Your task to perform on an android device: Open ESPN.com Image 0: 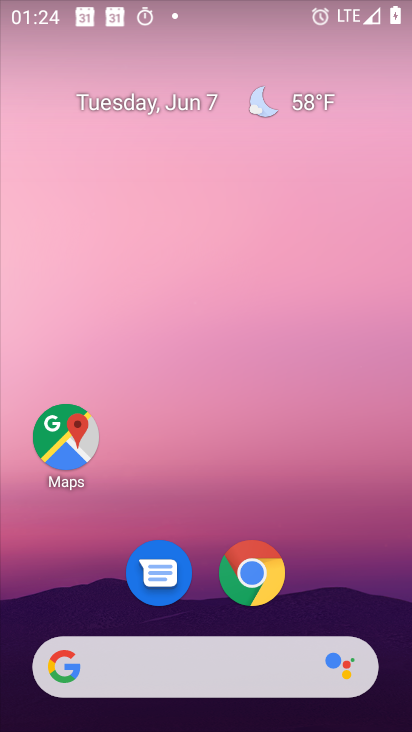
Step 0: click (256, 561)
Your task to perform on an android device: Open ESPN.com Image 1: 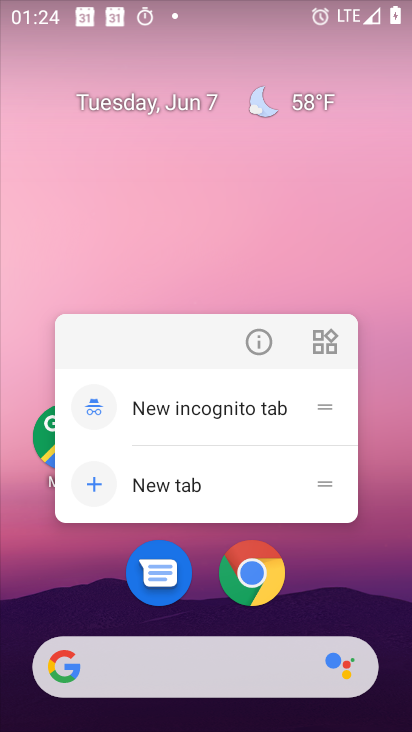
Step 1: click (344, 578)
Your task to perform on an android device: Open ESPN.com Image 2: 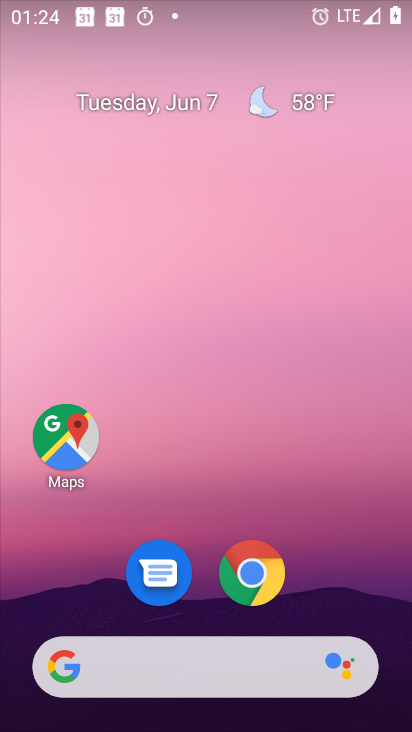
Step 2: drag from (352, 601) to (385, 65)
Your task to perform on an android device: Open ESPN.com Image 3: 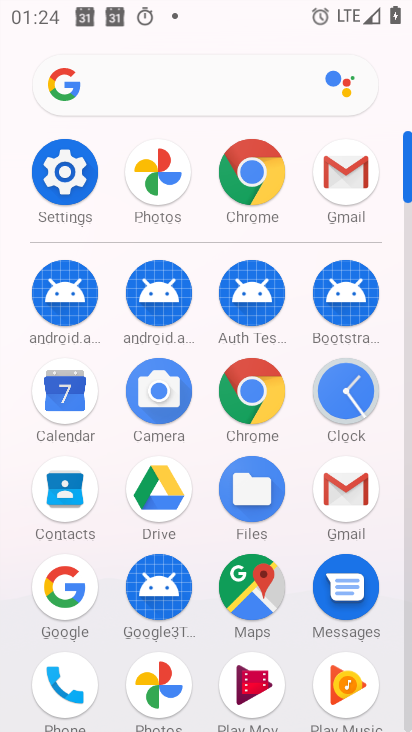
Step 3: click (260, 374)
Your task to perform on an android device: Open ESPN.com Image 4: 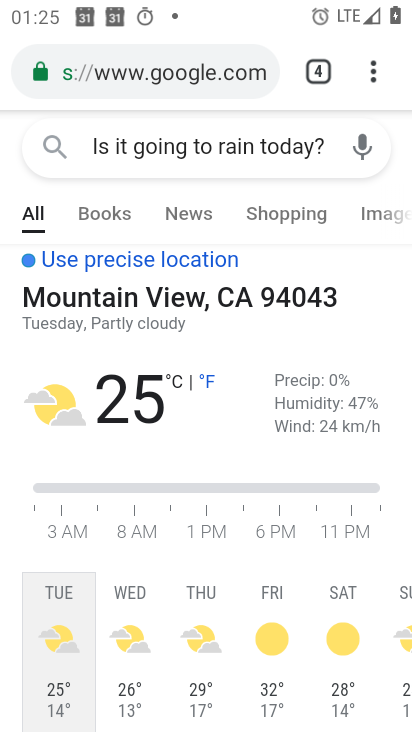
Step 4: click (225, 74)
Your task to perform on an android device: Open ESPN.com Image 5: 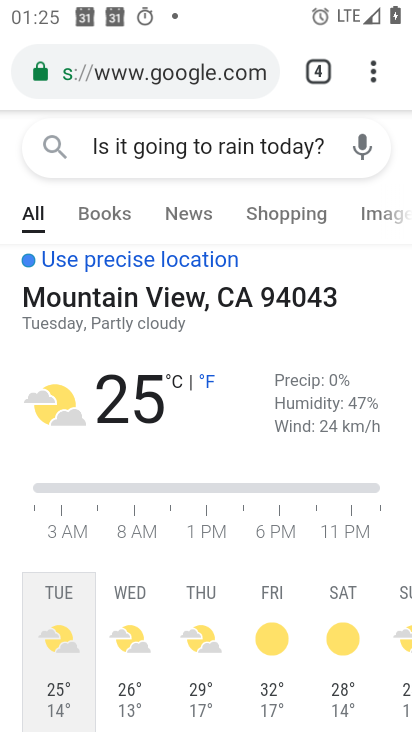
Step 5: click (225, 74)
Your task to perform on an android device: Open ESPN.com Image 6: 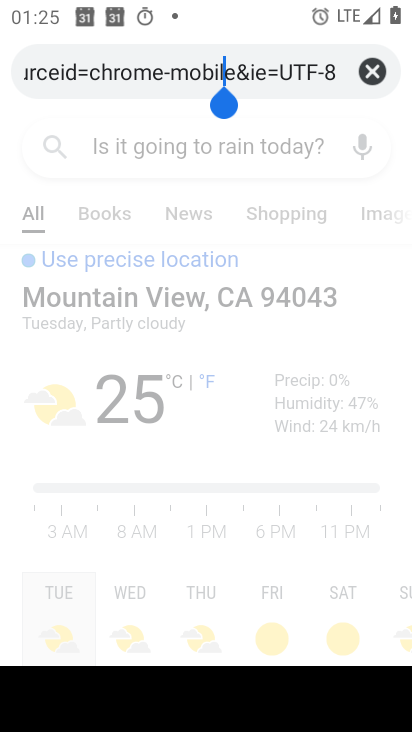
Step 6: click (294, 68)
Your task to perform on an android device: Open ESPN.com Image 7: 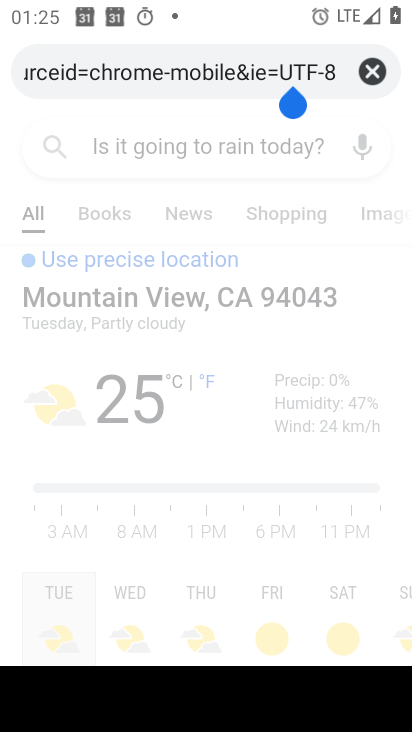
Step 7: click (294, 68)
Your task to perform on an android device: Open ESPN.com Image 8: 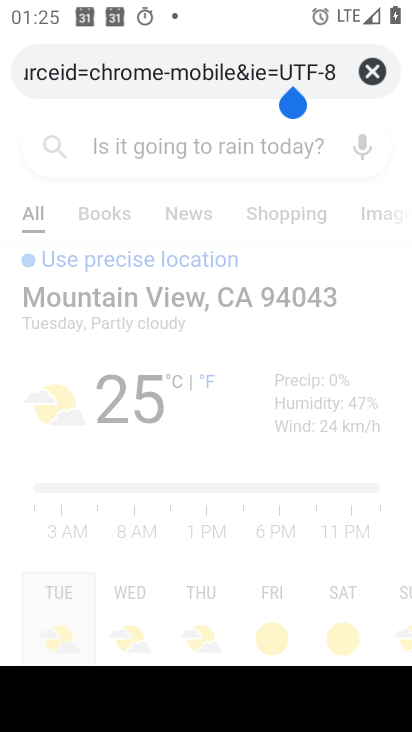
Step 8: click (294, 68)
Your task to perform on an android device: Open ESPN.com Image 9: 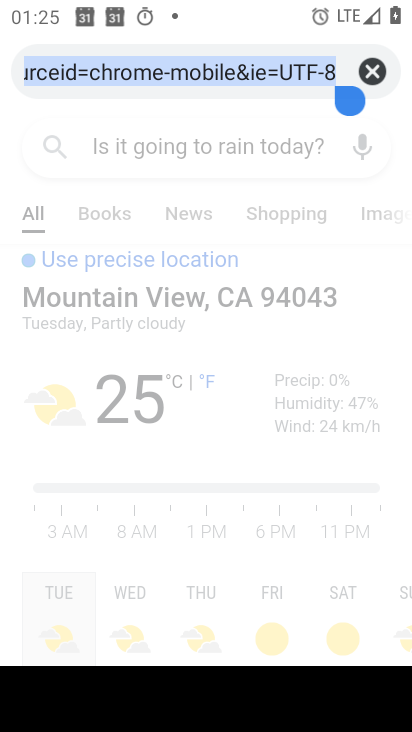
Step 9: click (294, 68)
Your task to perform on an android device: Open ESPN.com Image 10: 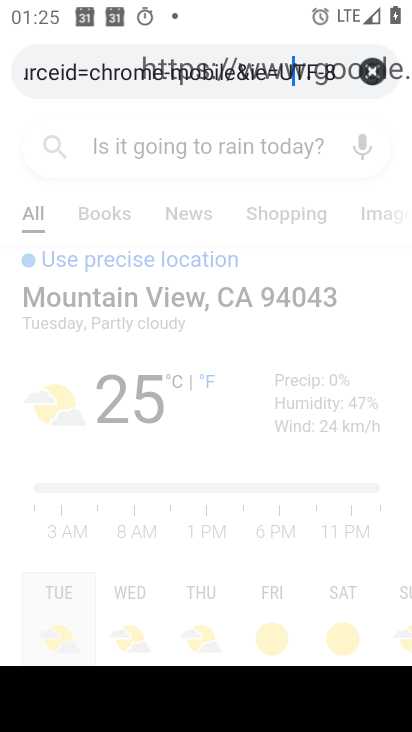
Step 10: click (321, 60)
Your task to perform on an android device: Open ESPN.com Image 11: 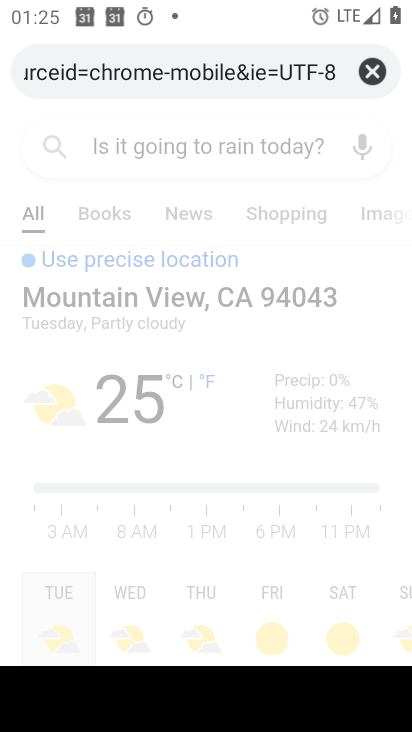
Step 11: click (321, 60)
Your task to perform on an android device: Open ESPN.com Image 12: 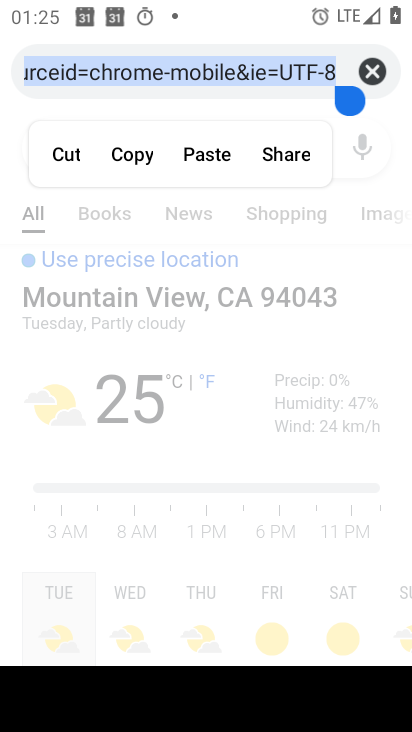
Step 12: click (363, 68)
Your task to perform on an android device: Open ESPN.com Image 13: 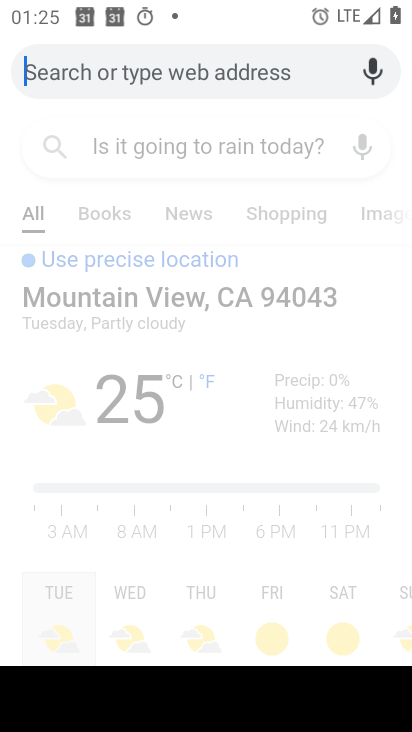
Step 13: type "ESPN.com"
Your task to perform on an android device: Open ESPN.com Image 14: 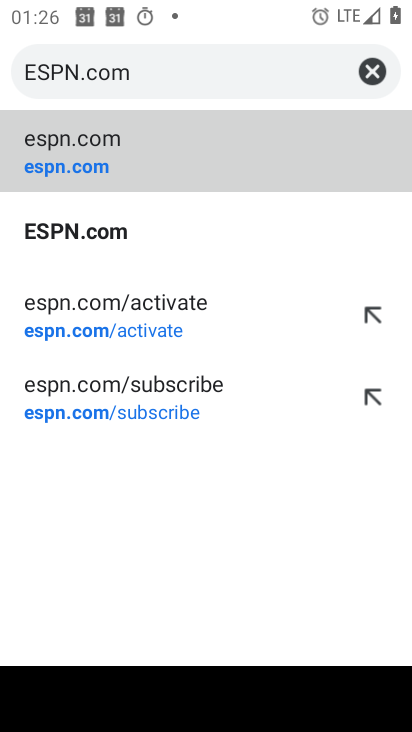
Step 14: click (52, 165)
Your task to perform on an android device: Open ESPN.com Image 15: 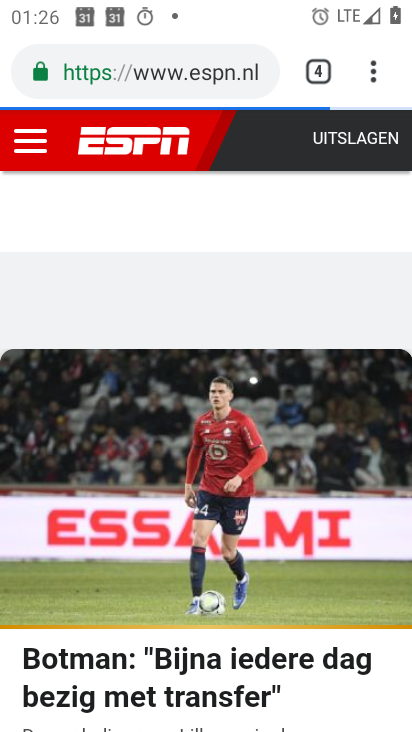
Step 15: task complete